Your task to perform on an android device: change alarm snooze length Image 0: 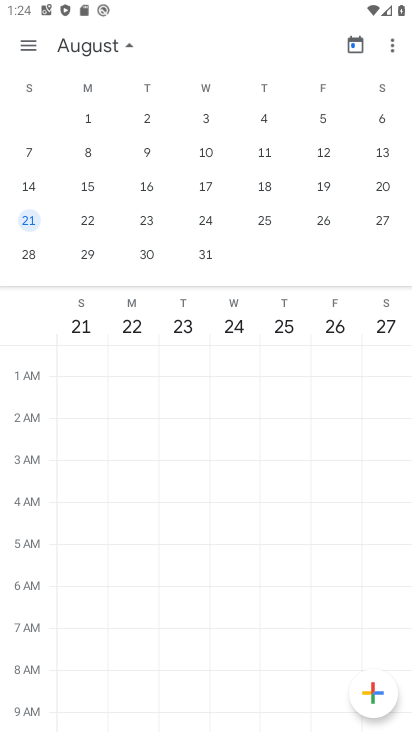
Step 0: press home button
Your task to perform on an android device: change alarm snooze length Image 1: 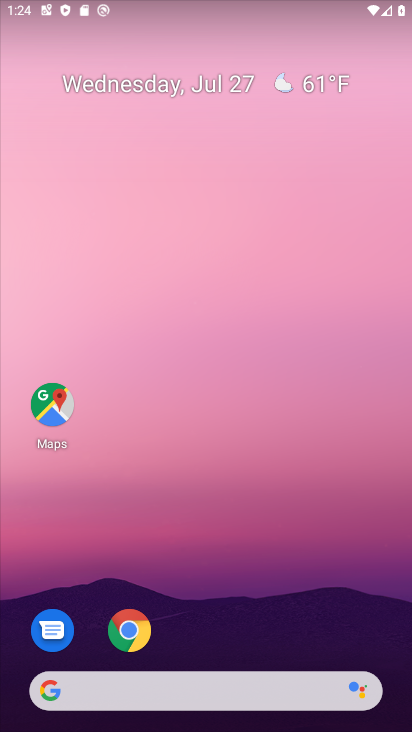
Step 1: drag from (191, 675) to (246, 153)
Your task to perform on an android device: change alarm snooze length Image 2: 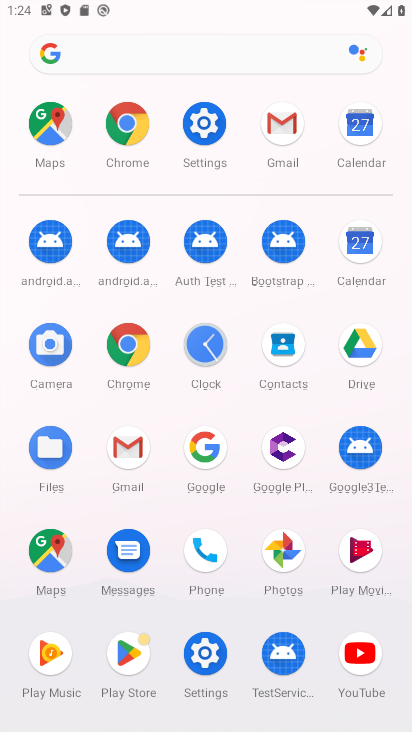
Step 2: click (204, 344)
Your task to perform on an android device: change alarm snooze length Image 3: 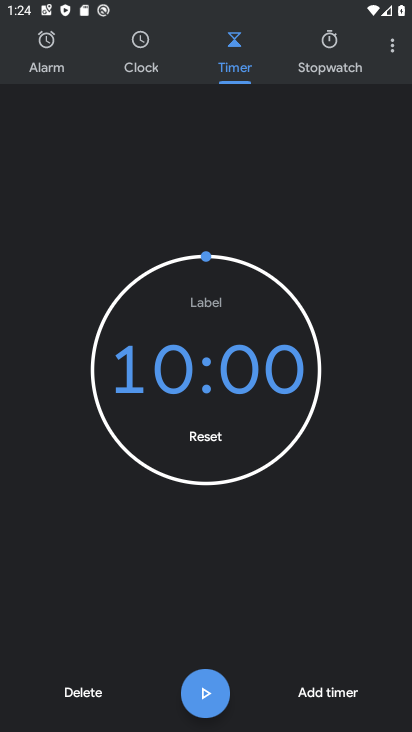
Step 3: click (383, 42)
Your task to perform on an android device: change alarm snooze length Image 4: 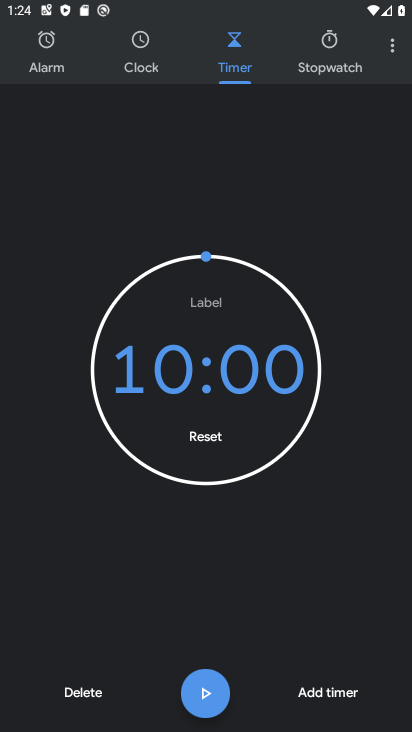
Step 4: click (388, 47)
Your task to perform on an android device: change alarm snooze length Image 5: 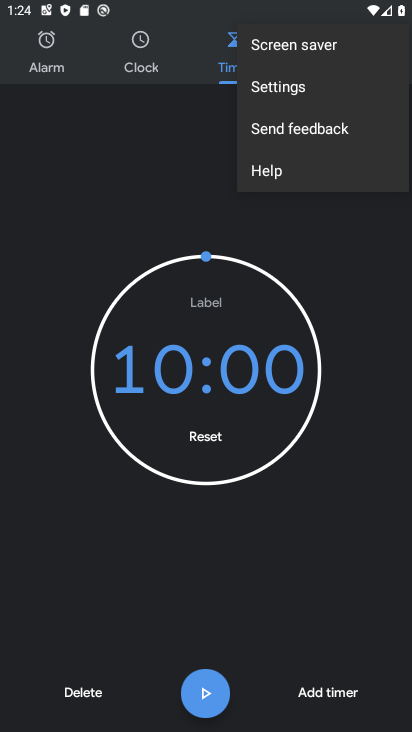
Step 5: click (277, 81)
Your task to perform on an android device: change alarm snooze length Image 6: 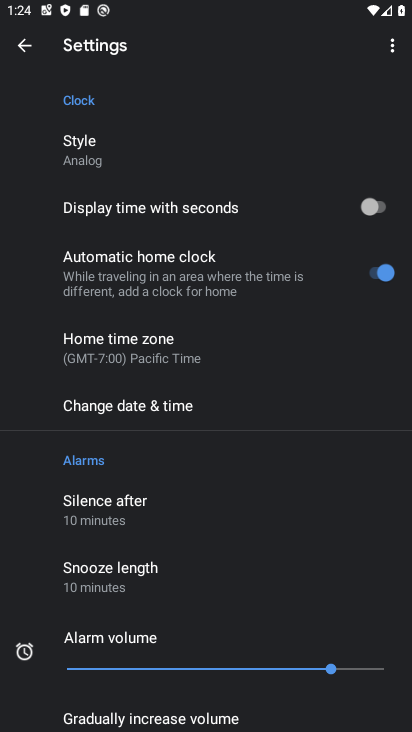
Step 6: click (123, 578)
Your task to perform on an android device: change alarm snooze length Image 7: 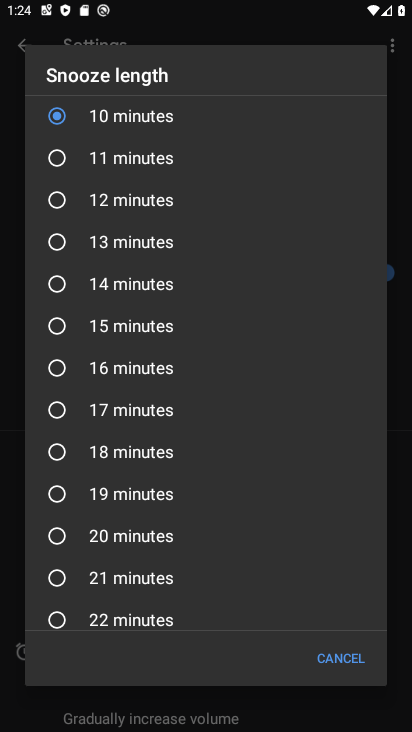
Step 7: click (101, 201)
Your task to perform on an android device: change alarm snooze length Image 8: 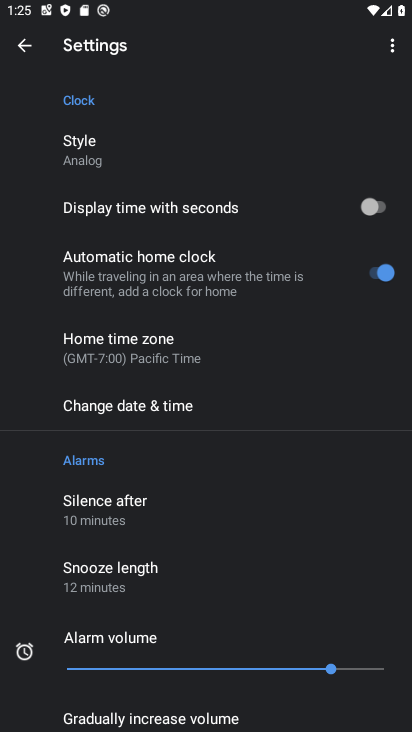
Step 8: task complete